Your task to perform on an android device: turn off priority inbox in the gmail app Image 0: 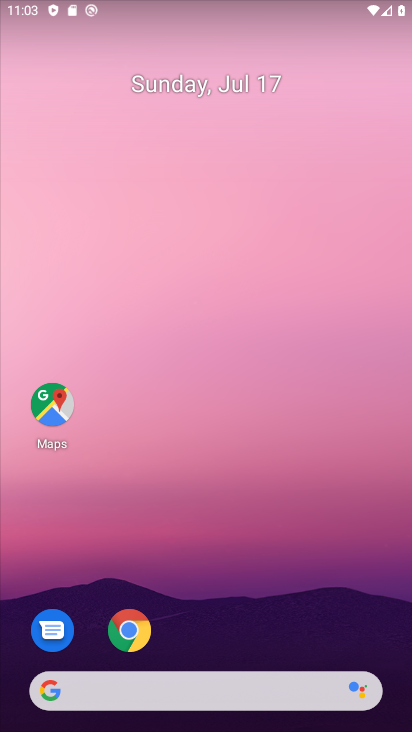
Step 0: drag from (230, 598) to (283, 84)
Your task to perform on an android device: turn off priority inbox in the gmail app Image 1: 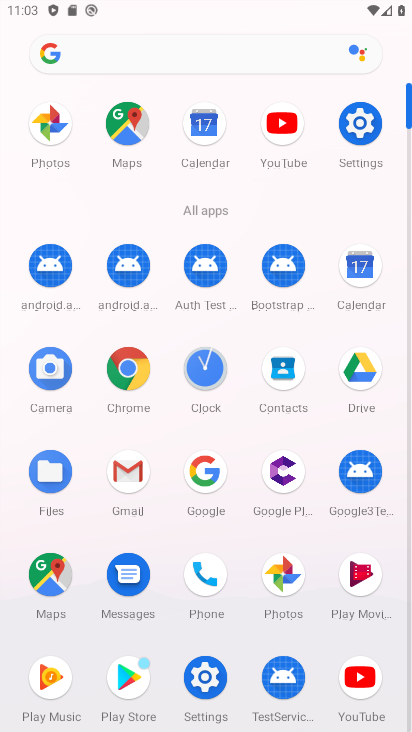
Step 1: click (135, 491)
Your task to perform on an android device: turn off priority inbox in the gmail app Image 2: 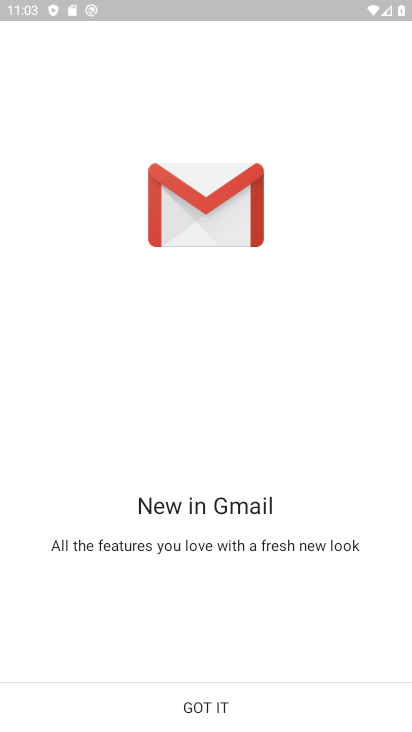
Step 2: click (231, 710)
Your task to perform on an android device: turn off priority inbox in the gmail app Image 3: 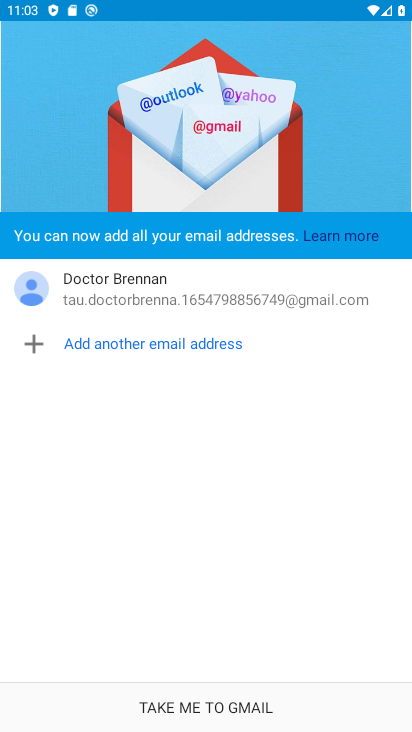
Step 3: click (233, 712)
Your task to perform on an android device: turn off priority inbox in the gmail app Image 4: 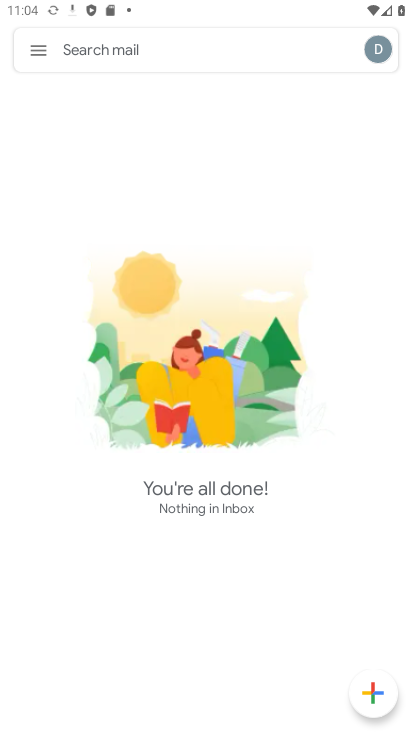
Step 4: click (29, 53)
Your task to perform on an android device: turn off priority inbox in the gmail app Image 5: 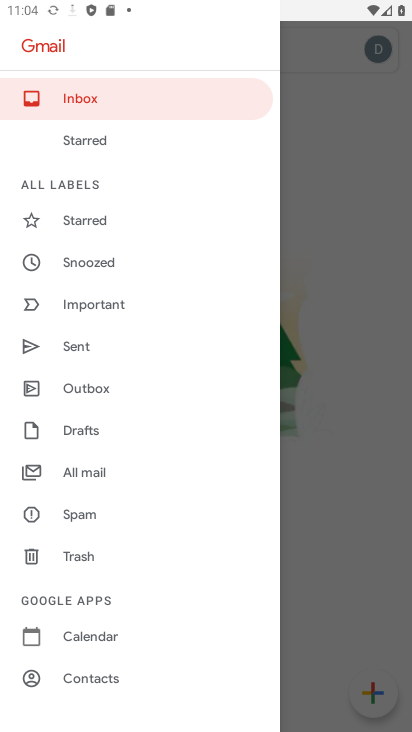
Step 5: drag from (127, 675) to (141, 313)
Your task to perform on an android device: turn off priority inbox in the gmail app Image 6: 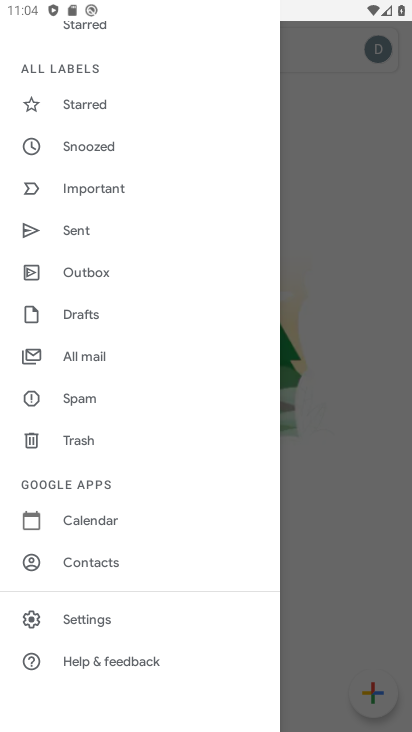
Step 6: click (89, 622)
Your task to perform on an android device: turn off priority inbox in the gmail app Image 7: 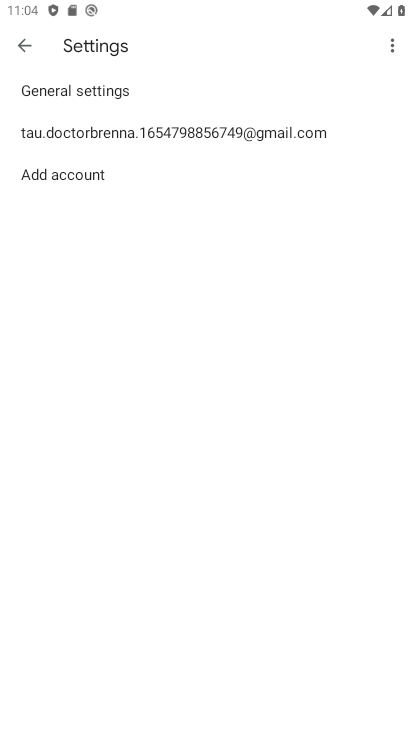
Step 7: click (74, 135)
Your task to perform on an android device: turn off priority inbox in the gmail app Image 8: 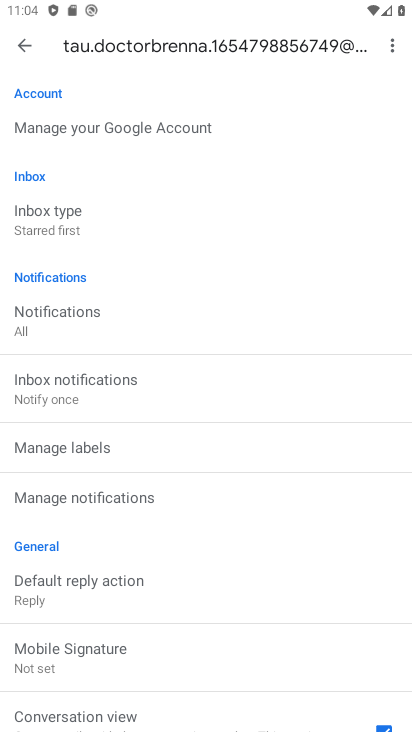
Step 8: click (56, 215)
Your task to perform on an android device: turn off priority inbox in the gmail app Image 9: 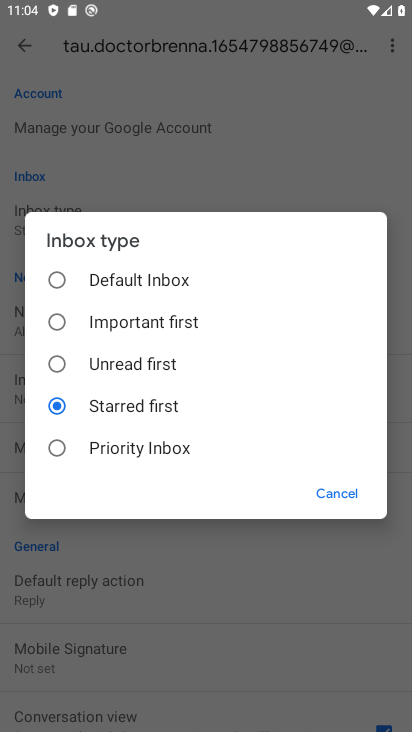
Step 9: click (128, 281)
Your task to perform on an android device: turn off priority inbox in the gmail app Image 10: 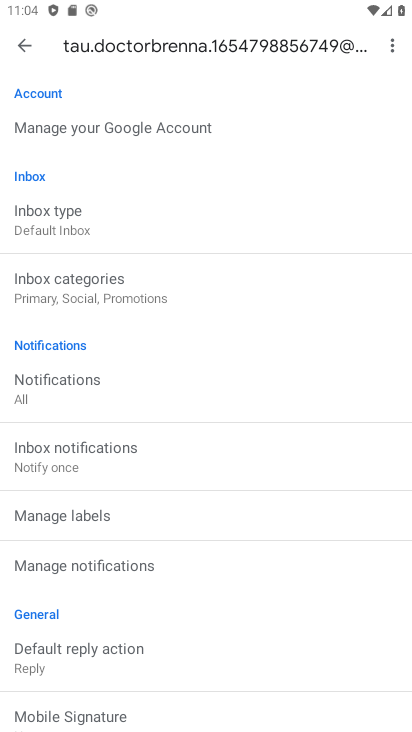
Step 10: task complete